Your task to perform on an android device: Open settings Image 0: 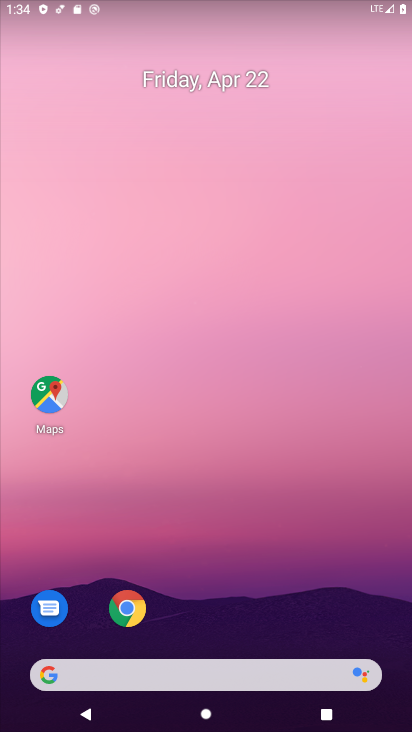
Step 0: drag from (264, 698) to (265, 171)
Your task to perform on an android device: Open settings Image 1: 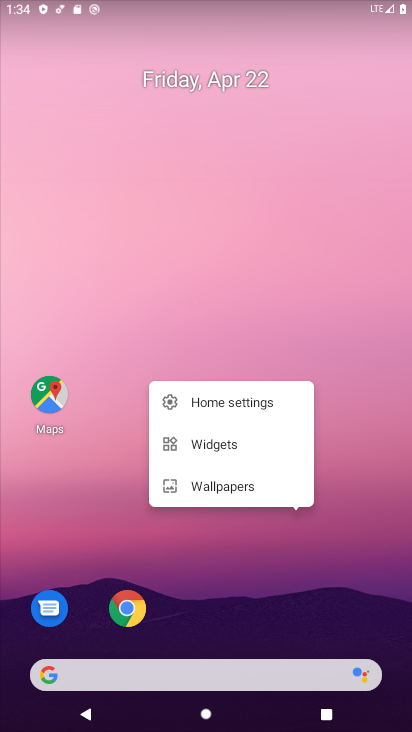
Step 1: click (267, 172)
Your task to perform on an android device: Open settings Image 2: 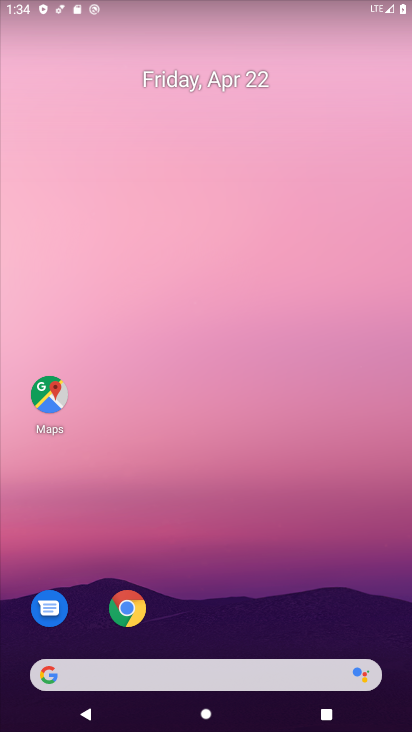
Step 2: drag from (273, 695) to (273, 188)
Your task to perform on an android device: Open settings Image 3: 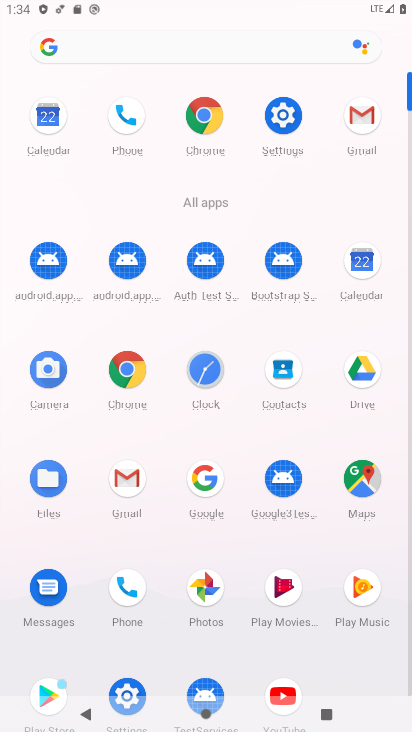
Step 3: click (281, 123)
Your task to perform on an android device: Open settings Image 4: 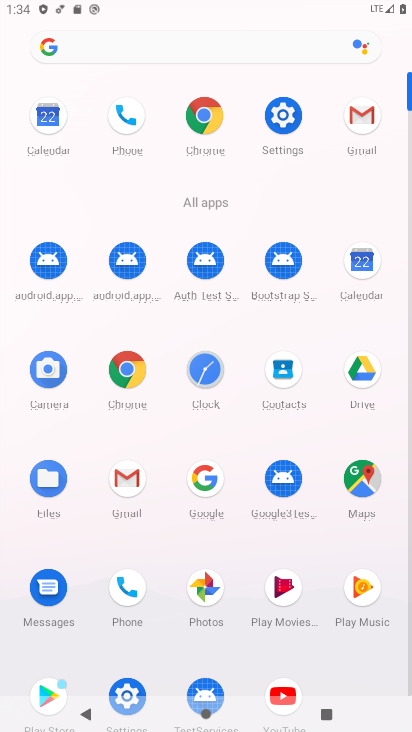
Step 4: click (277, 116)
Your task to perform on an android device: Open settings Image 5: 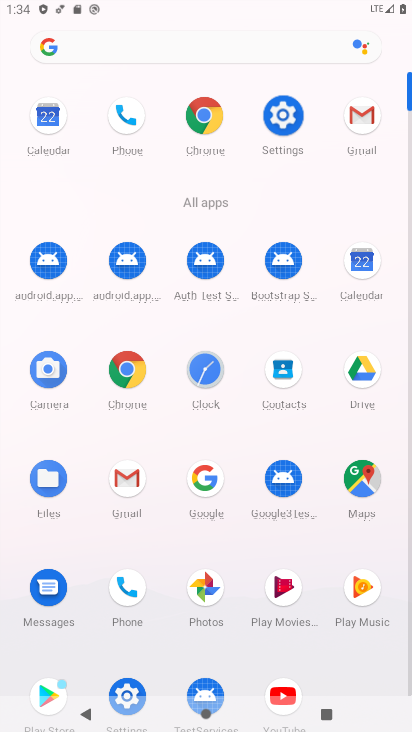
Step 5: click (278, 119)
Your task to perform on an android device: Open settings Image 6: 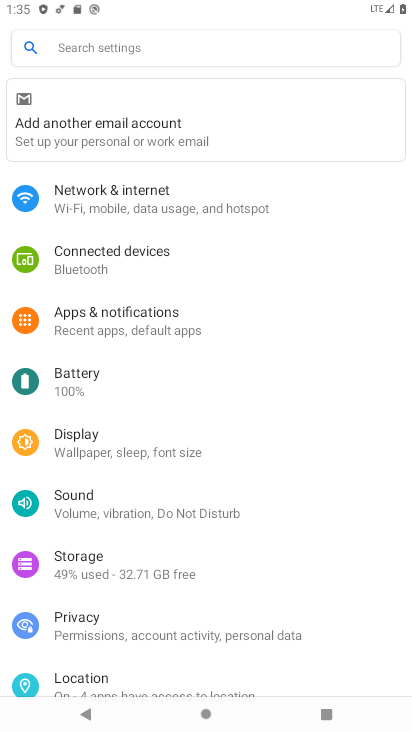
Step 6: task complete